Your task to perform on an android device: Find coffee shops on Maps Image 0: 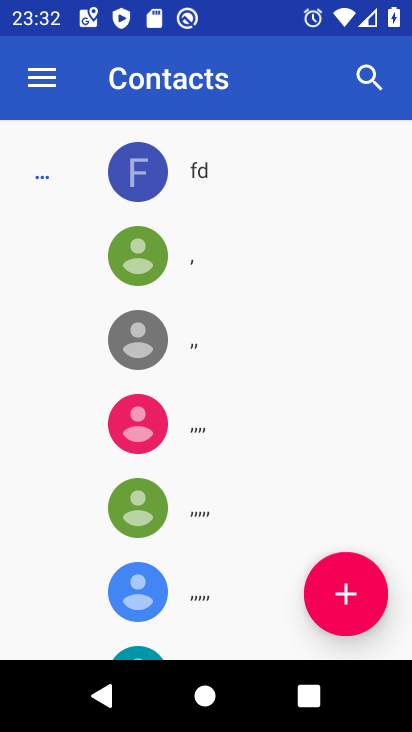
Step 0: press home button
Your task to perform on an android device: Find coffee shops on Maps Image 1: 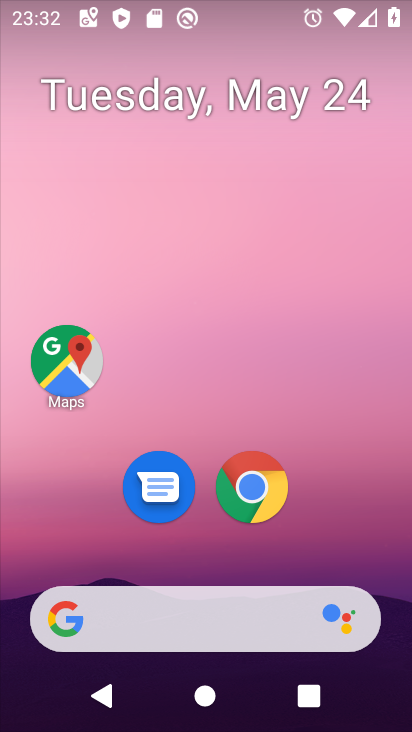
Step 1: click (24, 330)
Your task to perform on an android device: Find coffee shops on Maps Image 2: 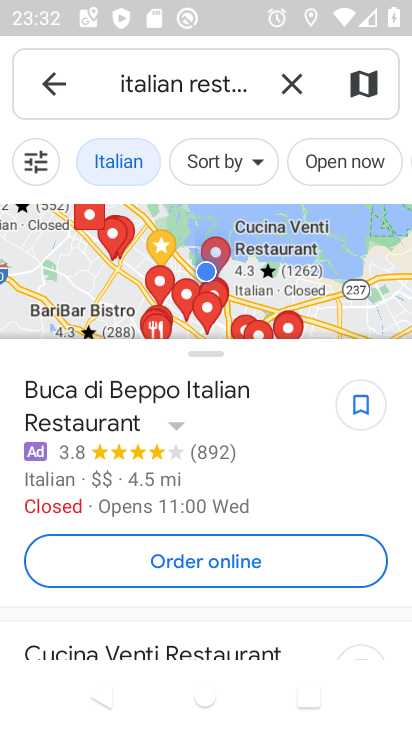
Step 2: click (294, 83)
Your task to perform on an android device: Find coffee shops on Maps Image 3: 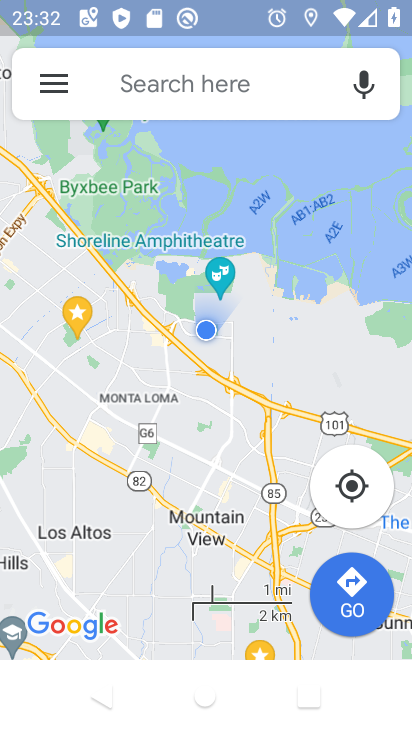
Step 3: click (206, 93)
Your task to perform on an android device: Find coffee shops on Maps Image 4: 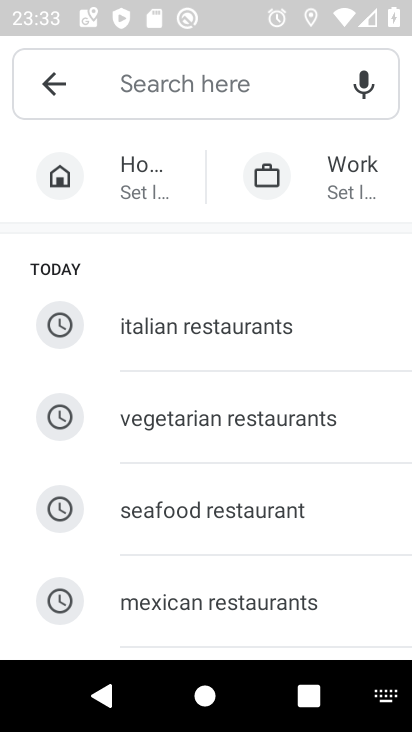
Step 4: type "coffee shops"
Your task to perform on an android device: Find coffee shops on Maps Image 5: 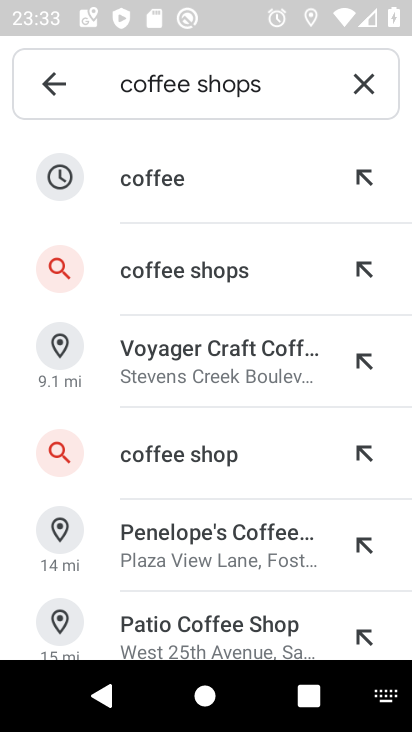
Step 5: click (203, 280)
Your task to perform on an android device: Find coffee shops on Maps Image 6: 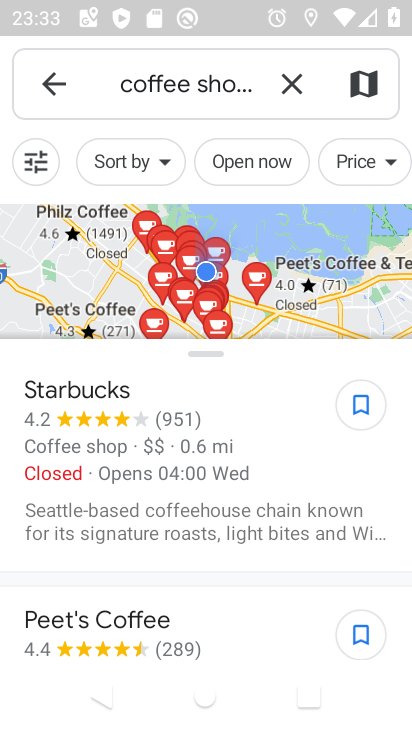
Step 6: task complete